Your task to perform on an android device: Open CNN.com Image 0: 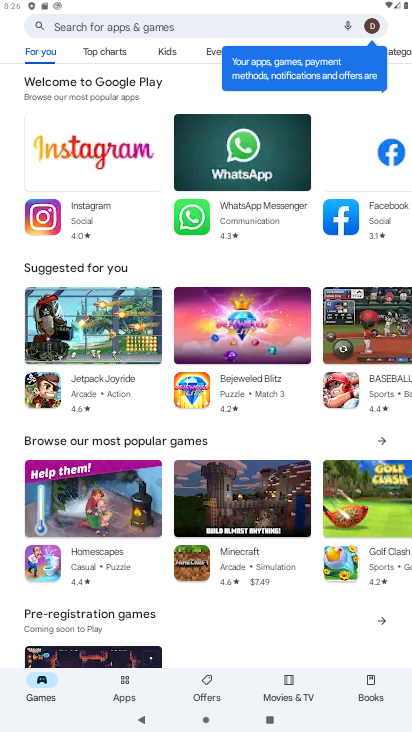
Step 0: press home button
Your task to perform on an android device: Open CNN.com Image 1: 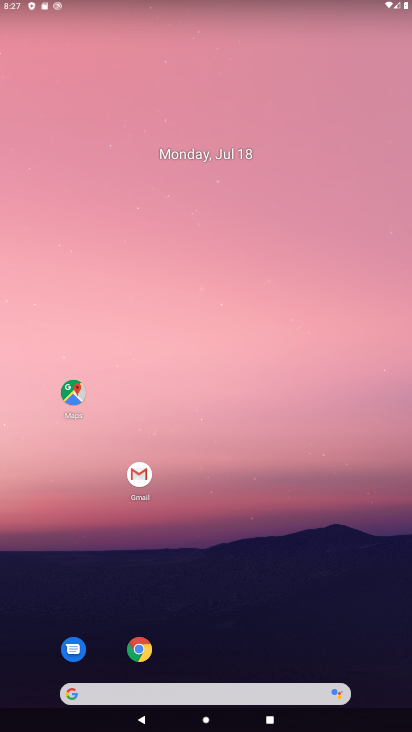
Step 1: click (209, 696)
Your task to perform on an android device: Open CNN.com Image 2: 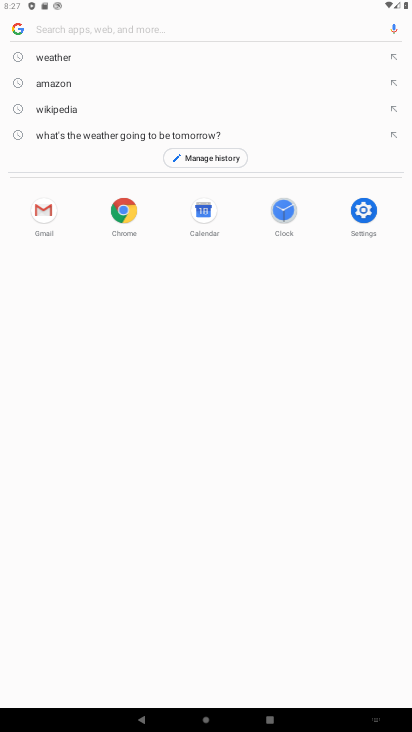
Step 2: type "CNN.com"
Your task to perform on an android device: Open CNN.com Image 3: 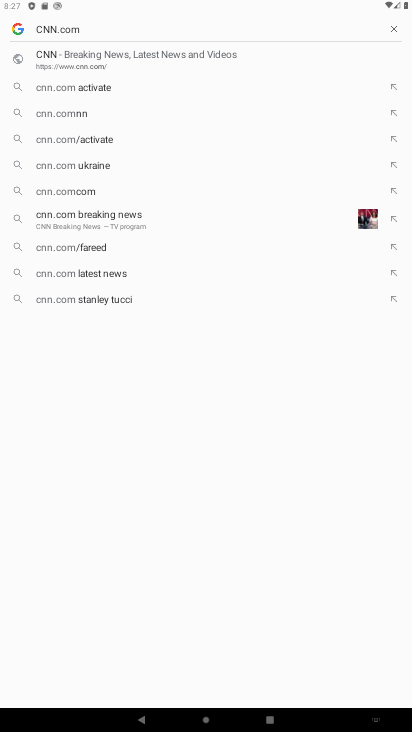
Step 3: press enter
Your task to perform on an android device: Open CNN.com Image 4: 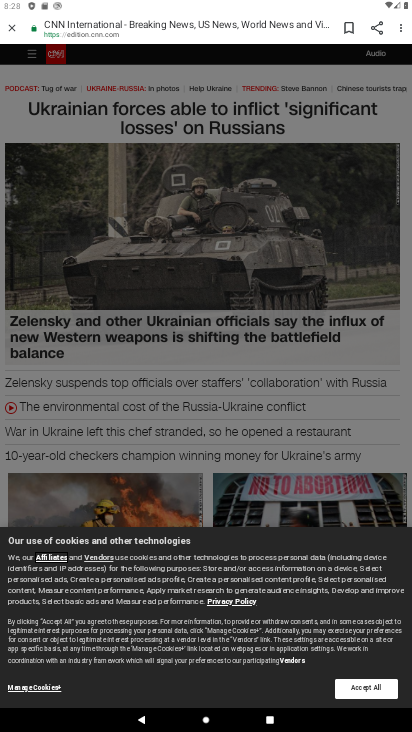
Step 4: task complete